Your task to perform on an android device: Go to Maps Image 0: 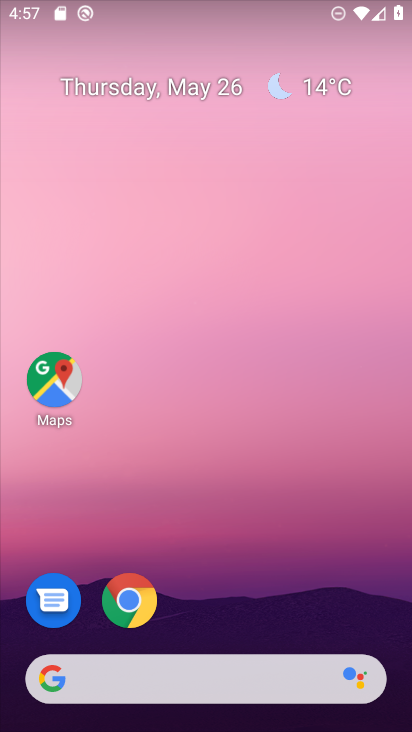
Step 0: click (35, 383)
Your task to perform on an android device: Go to Maps Image 1: 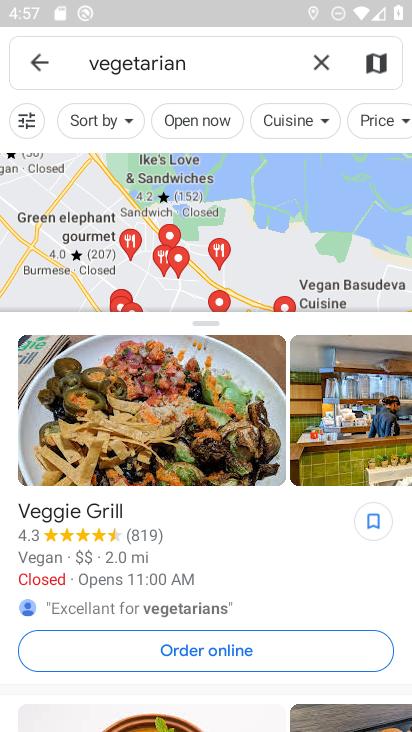
Step 1: task complete